Your task to perform on an android device: set the stopwatch Image 0: 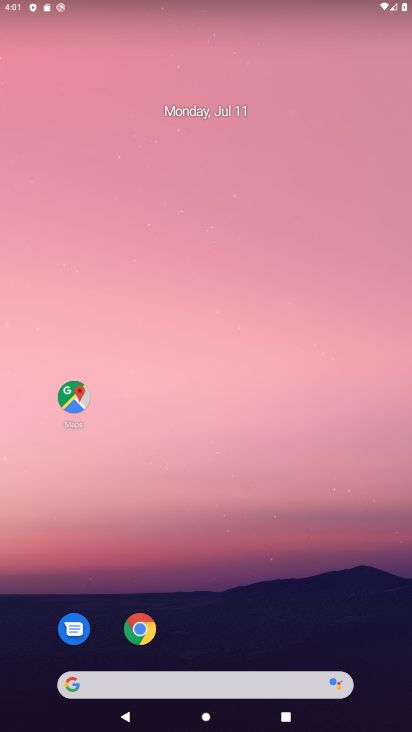
Step 0: click (210, 117)
Your task to perform on an android device: set the stopwatch Image 1: 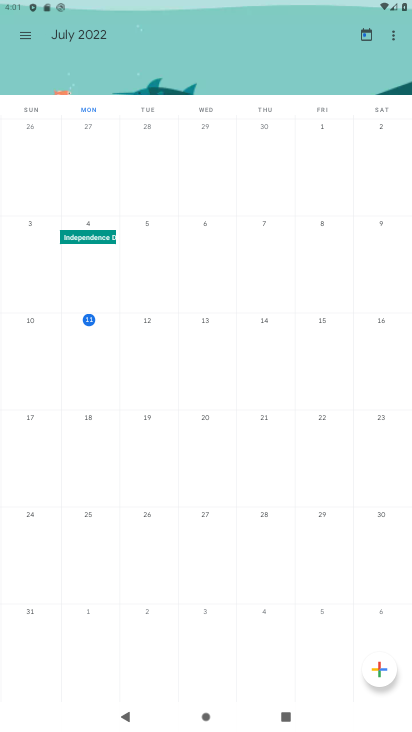
Step 1: press home button
Your task to perform on an android device: set the stopwatch Image 2: 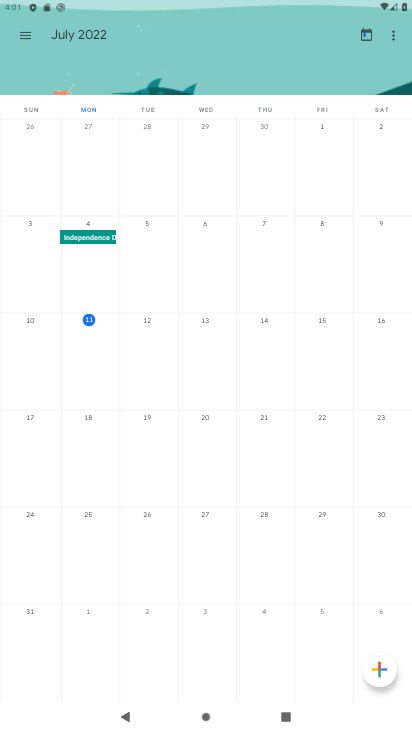
Step 2: press home button
Your task to perform on an android device: set the stopwatch Image 3: 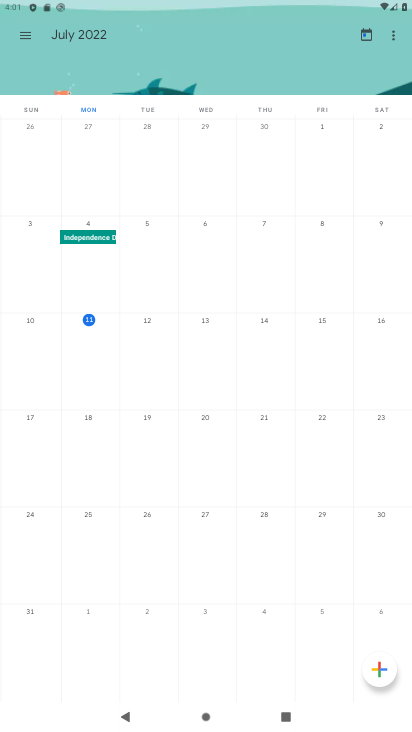
Step 3: click (275, 12)
Your task to perform on an android device: set the stopwatch Image 4: 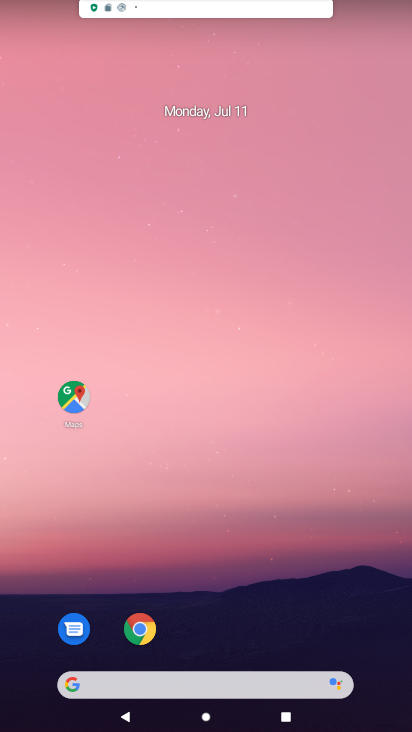
Step 4: drag from (196, 602) to (343, 24)
Your task to perform on an android device: set the stopwatch Image 5: 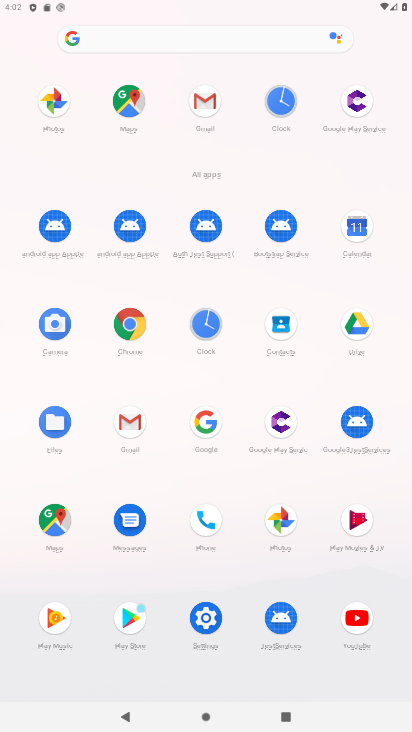
Step 5: click (201, 331)
Your task to perform on an android device: set the stopwatch Image 6: 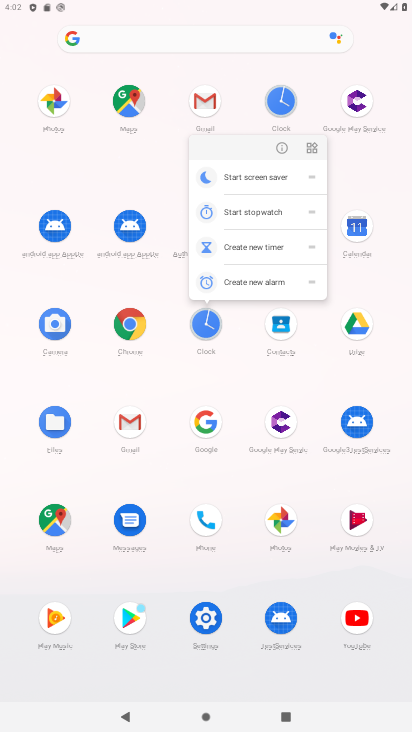
Step 6: click (281, 154)
Your task to perform on an android device: set the stopwatch Image 7: 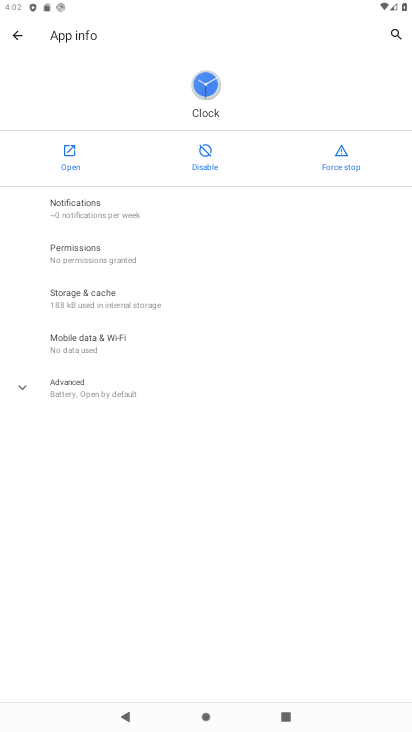
Step 7: click (61, 152)
Your task to perform on an android device: set the stopwatch Image 8: 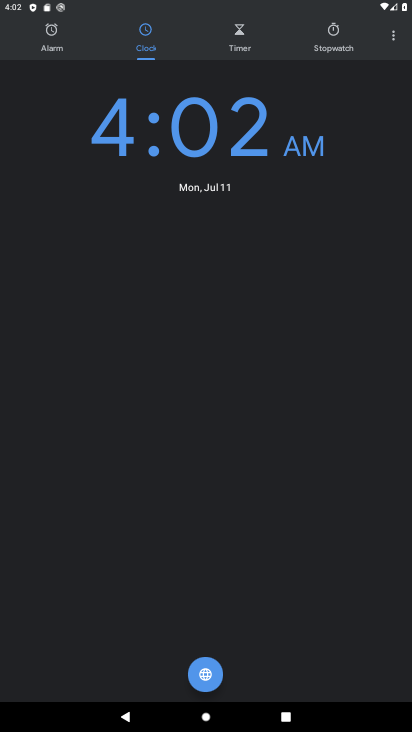
Step 8: click (394, 39)
Your task to perform on an android device: set the stopwatch Image 9: 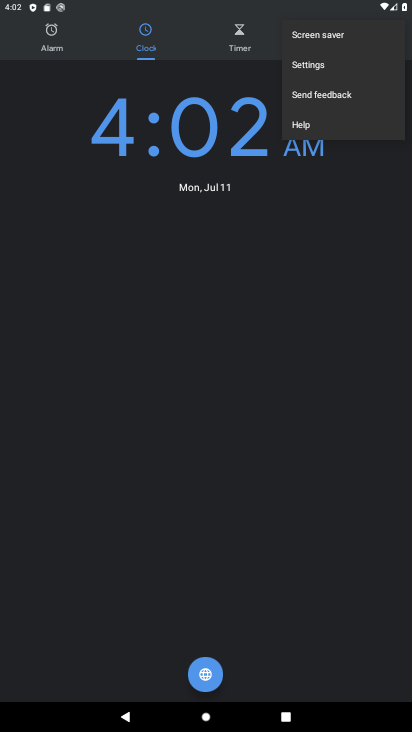
Step 9: click (300, 62)
Your task to perform on an android device: set the stopwatch Image 10: 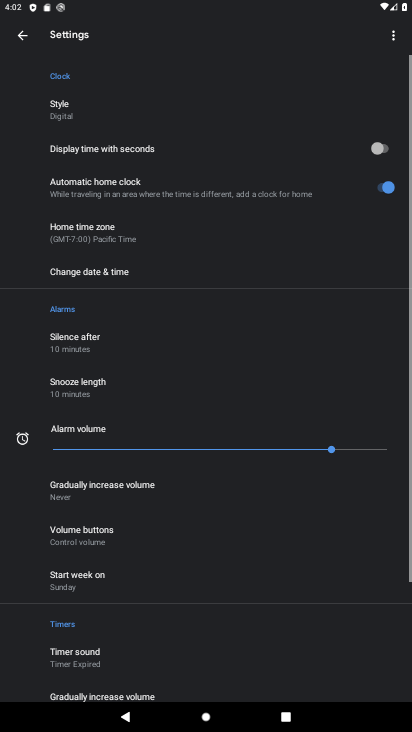
Step 10: drag from (221, 555) to (284, 197)
Your task to perform on an android device: set the stopwatch Image 11: 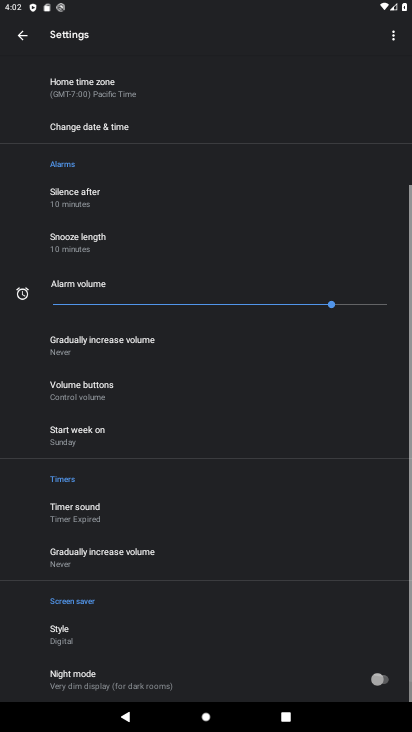
Step 11: drag from (271, 145) to (303, 695)
Your task to perform on an android device: set the stopwatch Image 12: 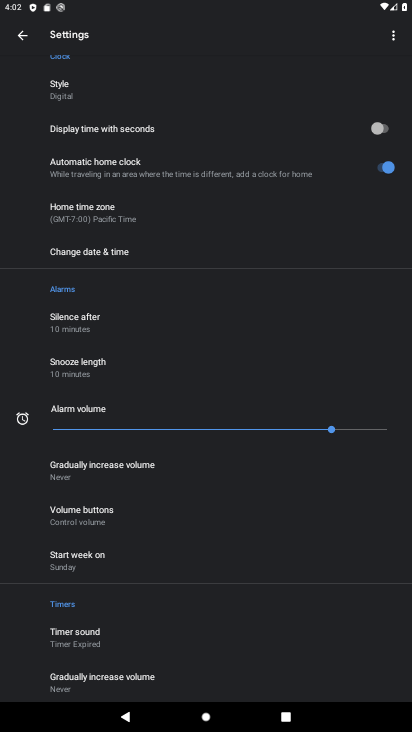
Step 12: drag from (250, 133) to (193, 519)
Your task to perform on an android device: set the stopwatch Image 13: 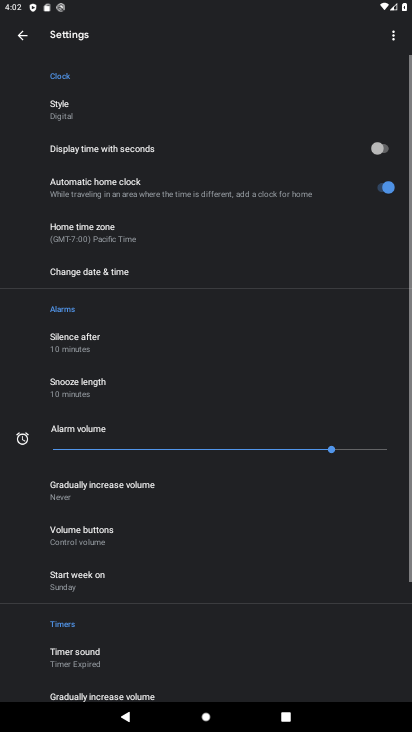
Step 13: click (29, 35)
Your task to perform on an android device: set the stopwatch Image 14: 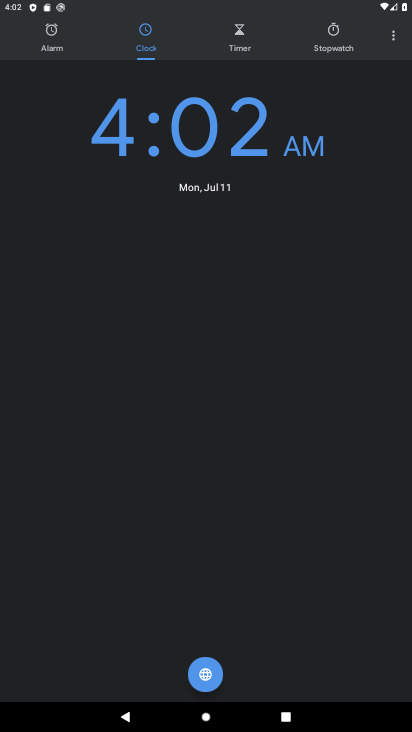
Step 14: click (311, 54)
Your task to perform on an android device: set the stopwatch Image 15: 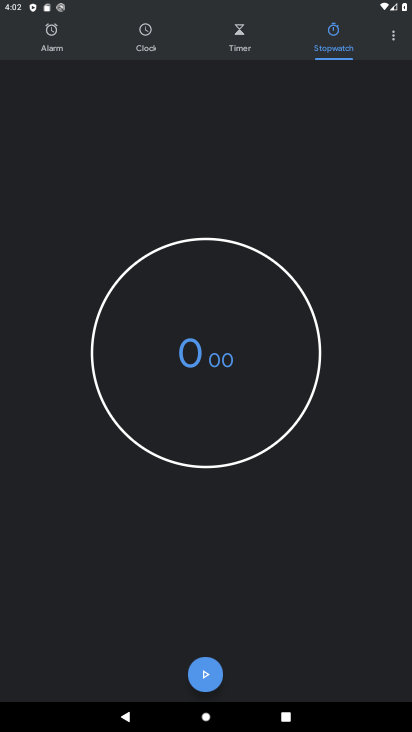
Step 15: drag from (228, 155) to (260, 644)
Your task to perform on an android device: set the stopwatch Image 16: 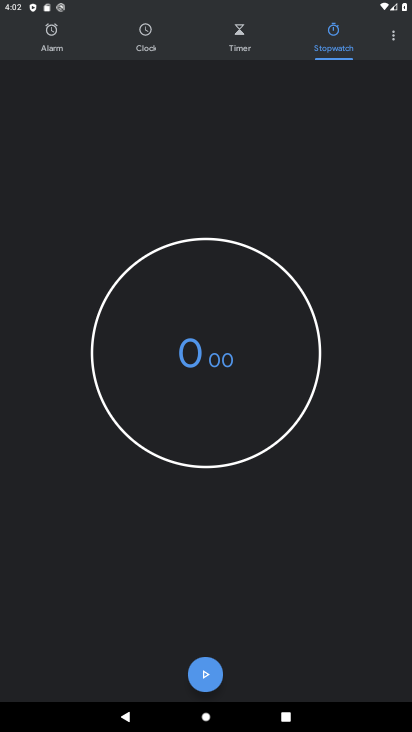
Step 16: click (218, 670)
Your task to perform on an android device: set the stopwatch Image 17: 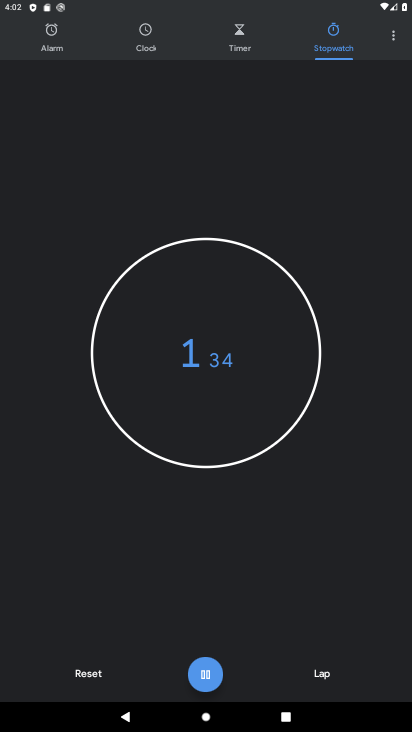
Step 17: task complete